Your task to perform on an android device: delete a single message in the gmail app Image 0: 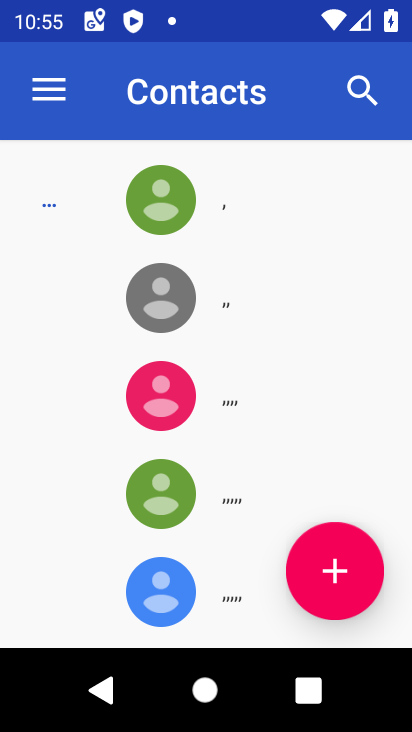
Step 0: press home button
Your task to perform on an android device: delete a single message in the gmail app Image 1: 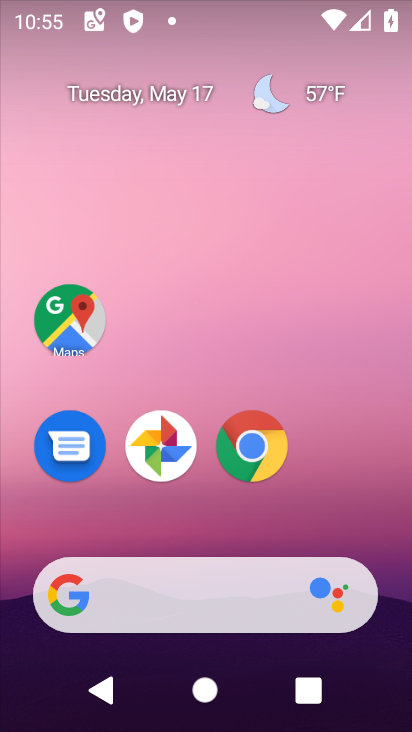
Step 1: drag from (175, 558) to (135, 0)
Your task to perform on an android device: delete a single message in the gmail app Image 2: 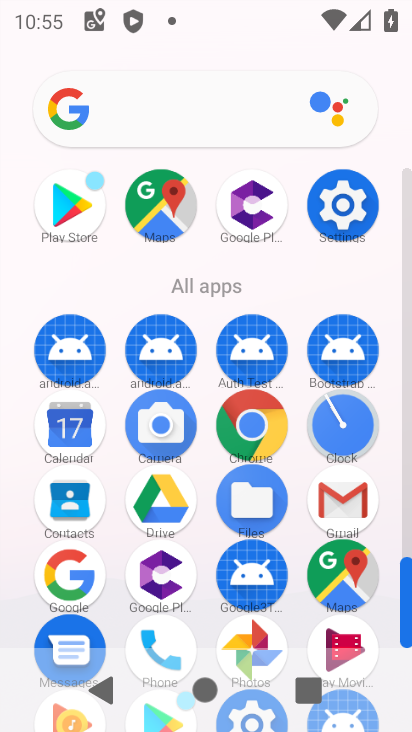
Step 2: click (348, 494)
Your task to perform on an android device: delete a single message in the gmail app Image 3: 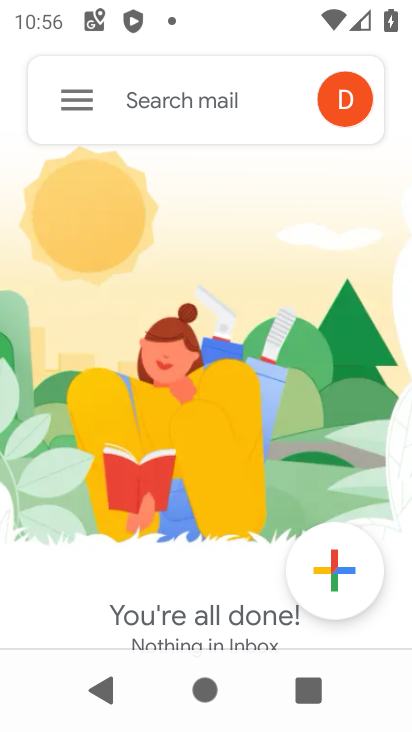
Step 3: click (78, 119)
Your task to perform on an android device: delete a single message in the gmail app Image 4: 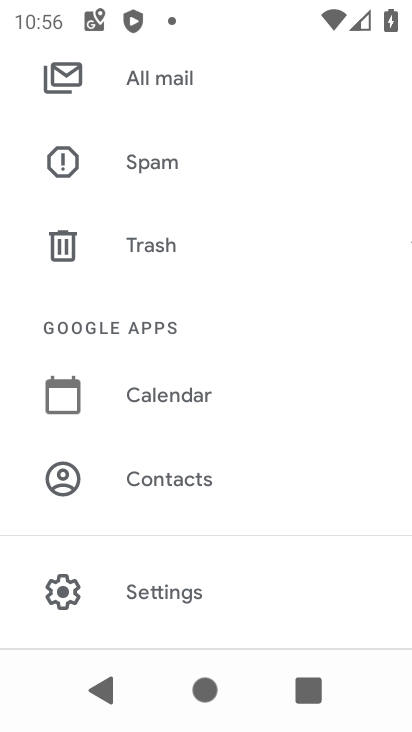
Step 4: click (152, 108)
Your task to perform on an android device: delete a single message in the gmail app Image 5: 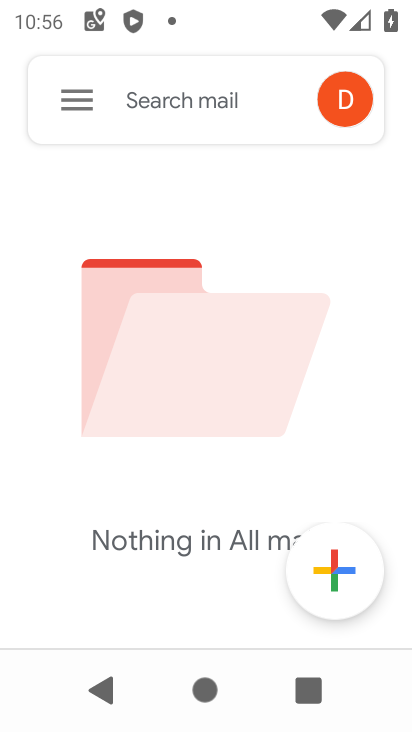
Step 5: task complete